Your task to perform on an android device: all mails in gmail Image 0: 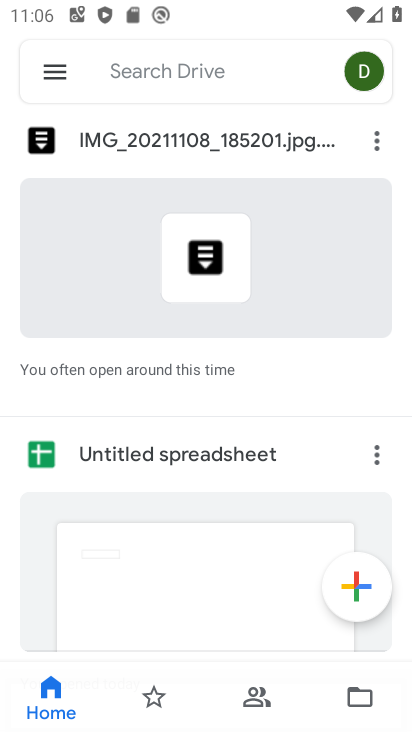
Step 0: press home button
Your task to perform on an android device: all mails in gmail Image 1: 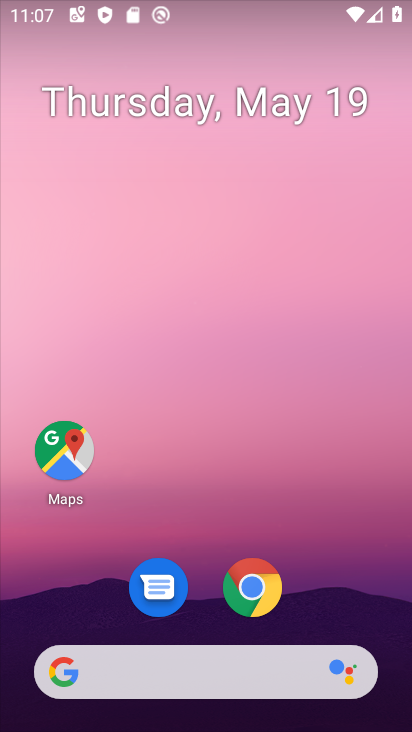
Step 1: drag from (225, 666) to (170, 271)
Your task to perform on an android device: all mails in gmail Image 2: 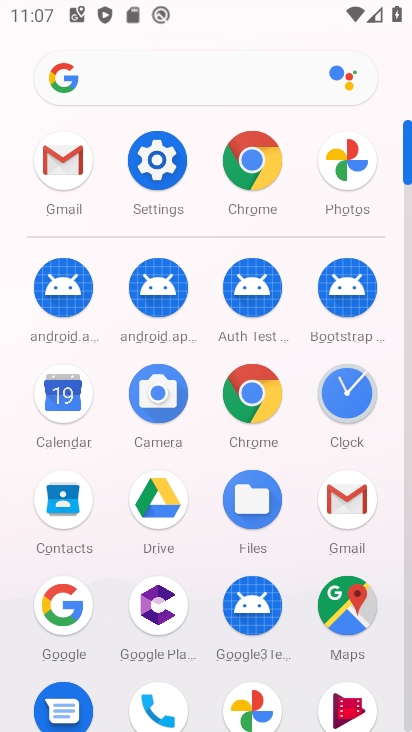
Step 2: click (51, 199)
Your task to perform on an android device: all mails in gmail Image 3: 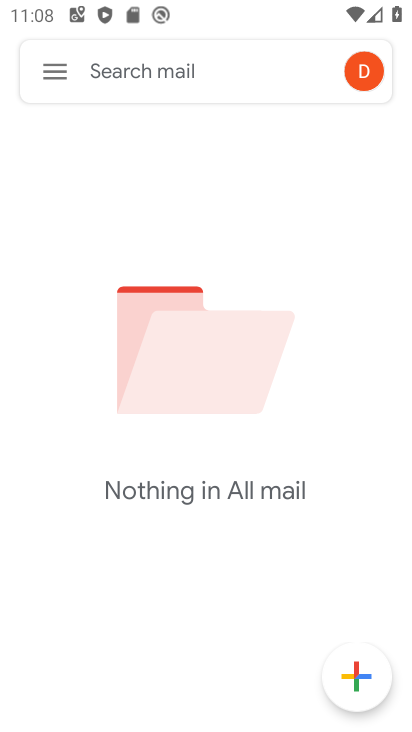
Step 3: task complete